Your task to perform on an android device: Set the phone to "Do not disturb". Image 0: 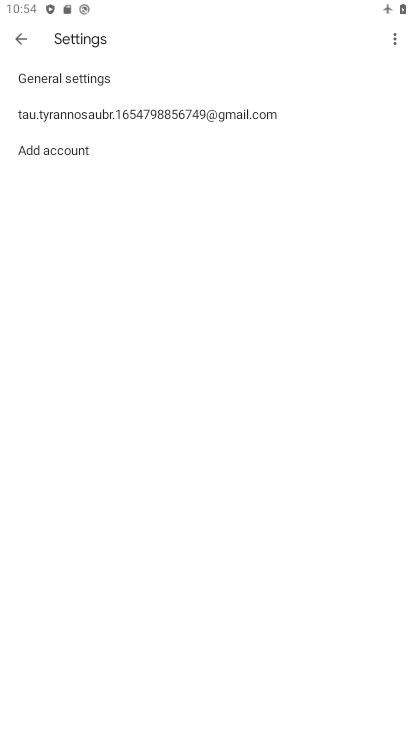
Step 0: press home button
Your task to perform on an android device: Set the phone to "Do not disturb". Image 1: 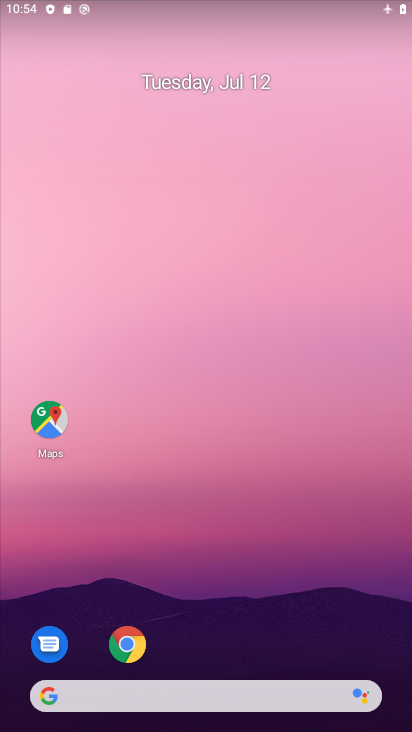
Step 1: drag from (217, 682) to (236, 247)
Your task to perform on an android device: Set the phone to "Do not disturb". Image 2: 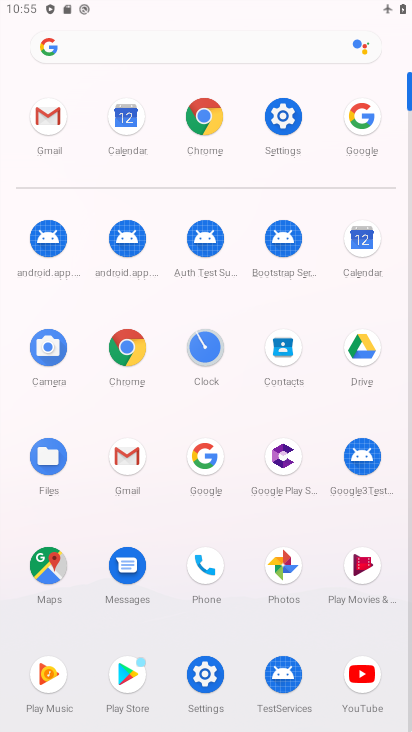
Step 2: click (280, 122)
Your task to perform on an android device: Set the phone to "Do not disturb". Image 3: 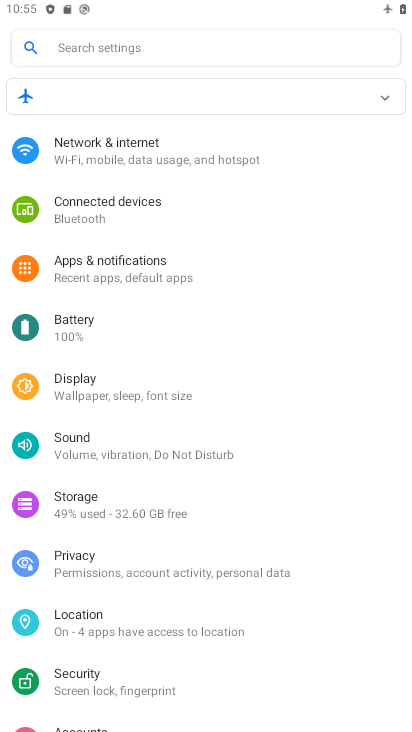
Step 3: click (160, 454)
Your task to perform on an android device: Set the phone to "Do not disturb". Image 4: 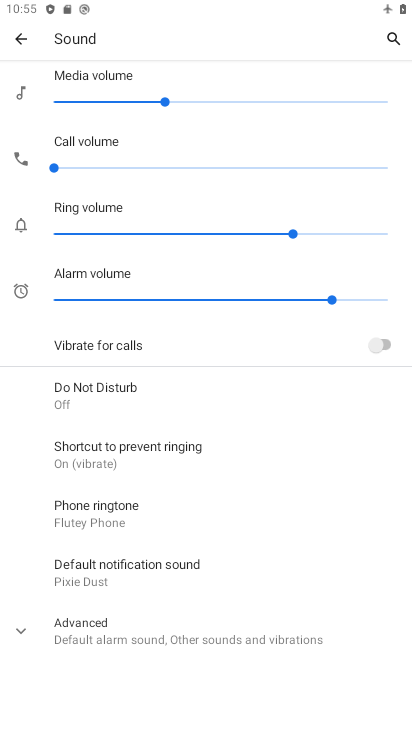
Step 4: click (70, 399)
Your task to perform on an android device: Set the phone to "Do not disturb". Image 5: 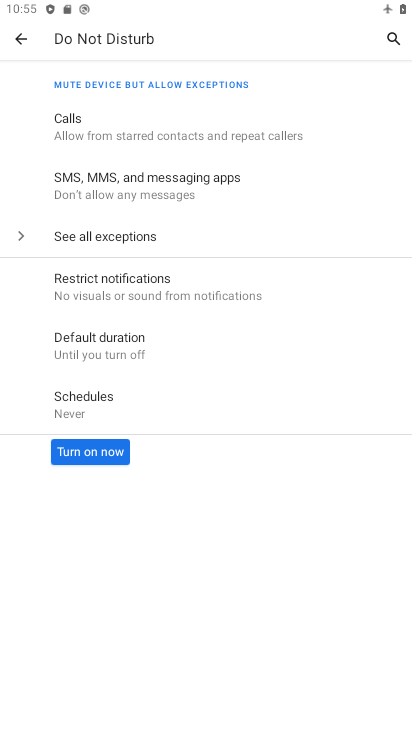
Step 5: click (94, 452)
Your task to perform on an android device: Set the phone to "Do not disturb". Image 6: 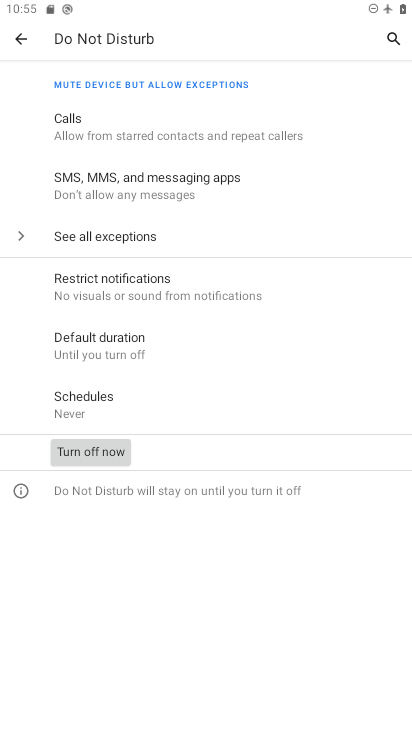
Step 6: task complete